Your task to perform on an android device: turn smart compose on in the gmail app Image 0: 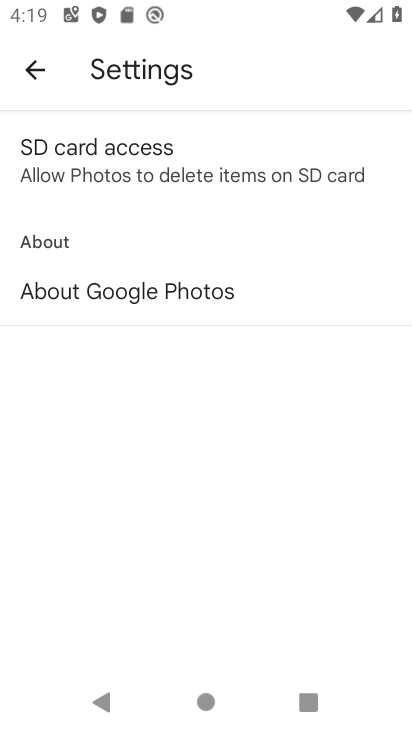
Step 0: press home button
Your task to perform on an android device: turn smart compose on in the gmail app Image 1: 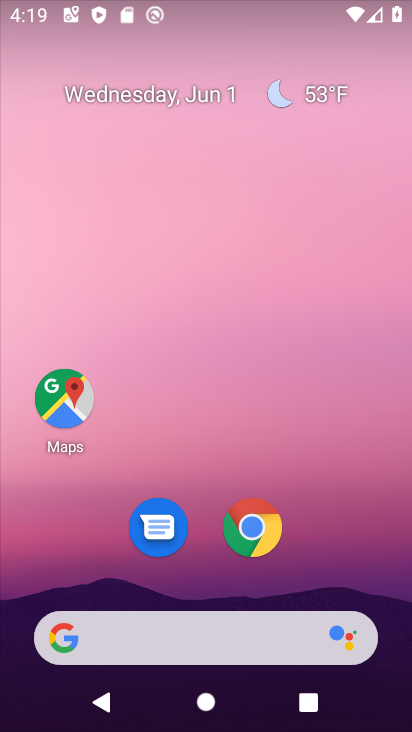
Step 1: drag from (290, 575) to (297, 62)
Your task to perform on an android device: turn smart compose on in the gmail app Image 2: 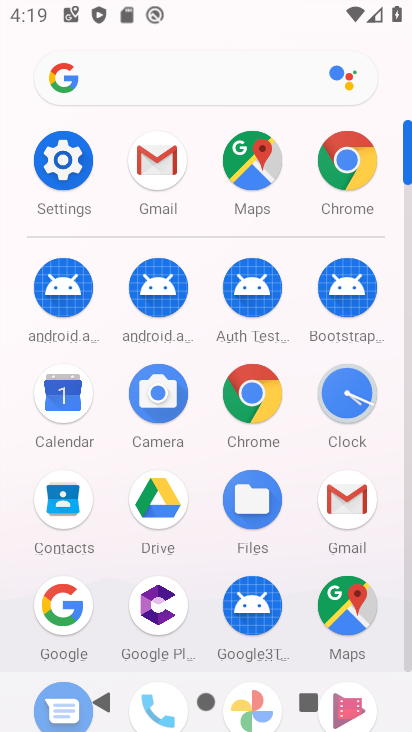
Step 2: click (341, 500)
Your task to perform on an android device: turn smart compose on in the gmail app Image 3: 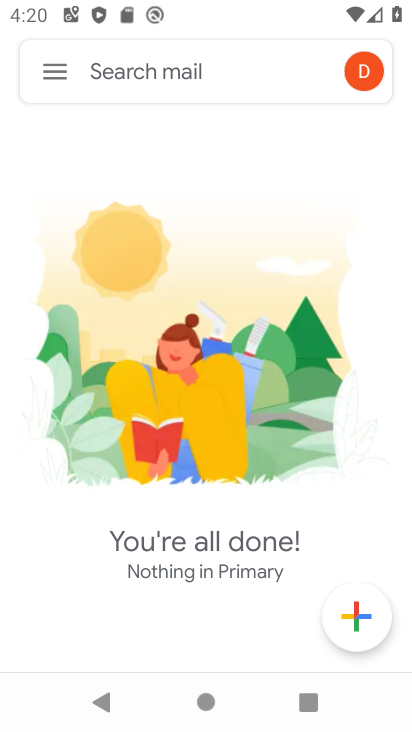
Step 3: click (54, 63)
Your task to perform on an android device: turn smart compose on in the gmail app Image 4: 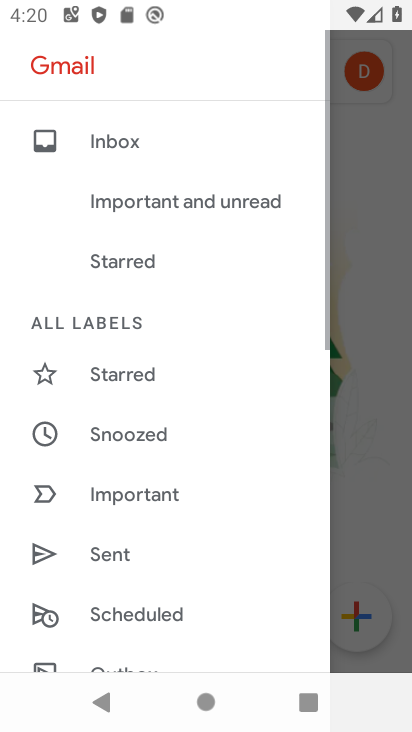
Step 4: drag from (174, 592) to (190, 120)
Your task to perform on an android device: turn smart compose on in the gmail app Image 5: 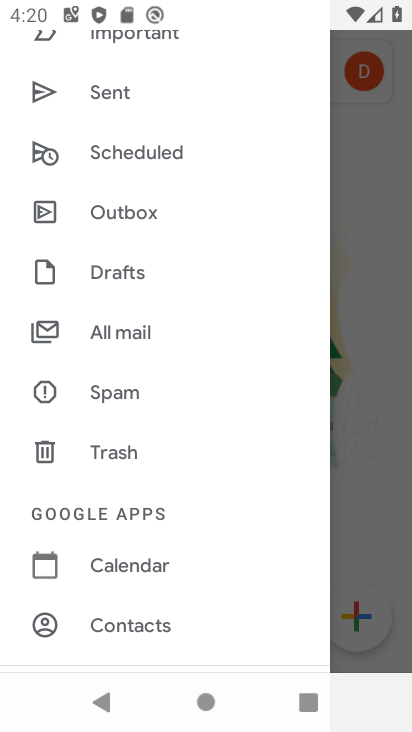
Step 5: drag from (220, 626) to (224, 237)
Your task to perform on an android device: turn smart compose on in the gmail app Image 6: 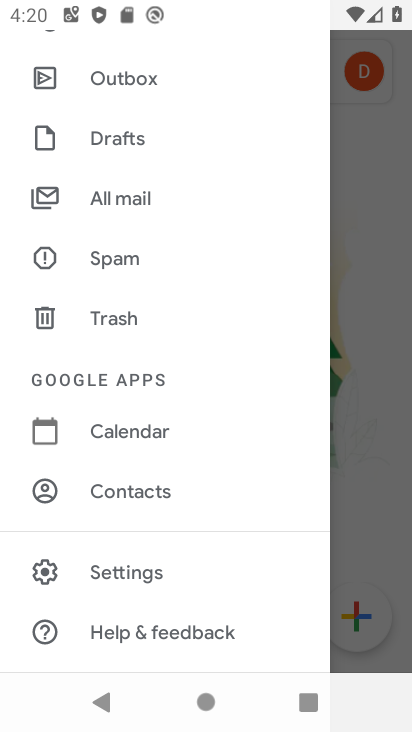
Step 6: click (115, 570)
Your task to perform on an android device: turn smart compose on in the gmail app Image 7: 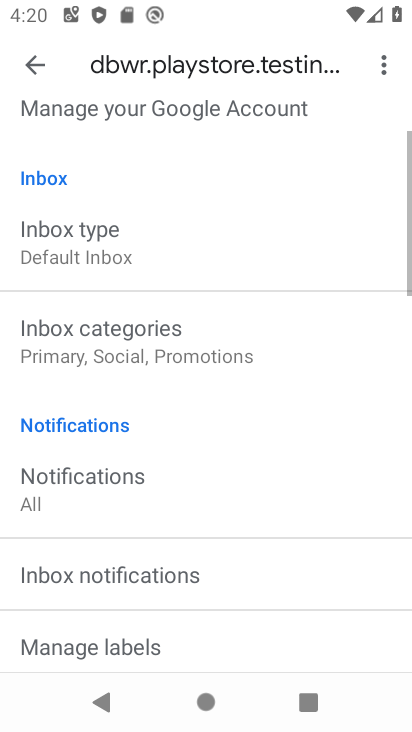
Step 7: task complete